Your task to perform on an android device: allow cookies in the chrome app Image 0: 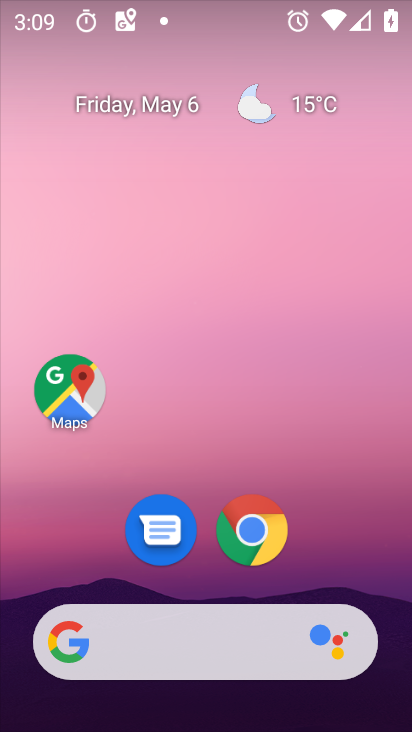
Step 0: drag from (365, 552) to (400, 104)
Your task to perform on an android device: allow cookies in the chrome app Image 1: 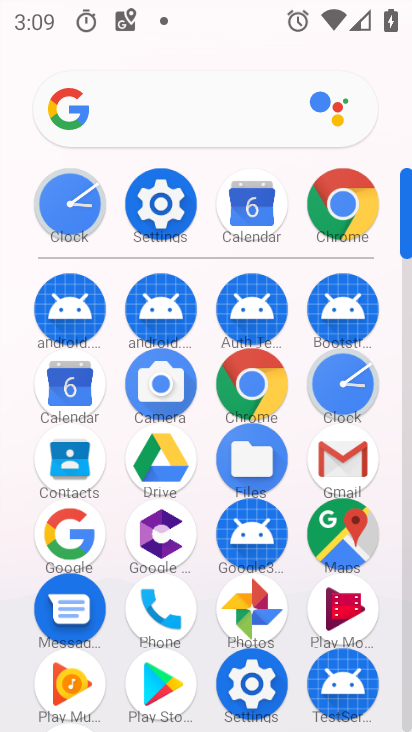
Step 1: click (347, 197)
Your task to perform on an android device: allow cookies in the chrome app Image 2: 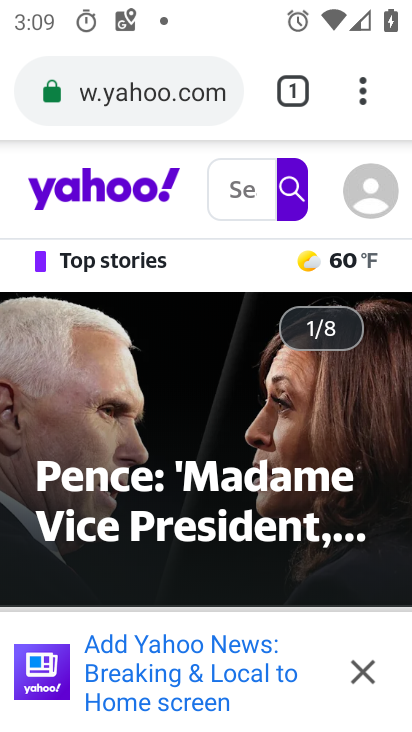
Step 2: drag from (368, 84) to (115, 552)
Your task to perform on an android device: allow cookies in the chrome app Image 3: 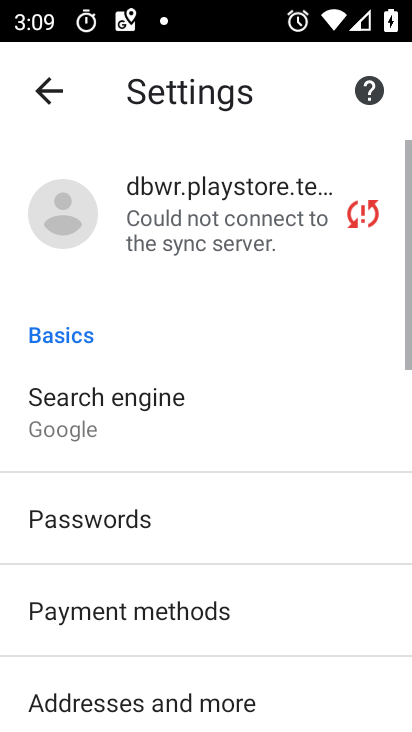
Step 3: drag from (137, 686) to (214, 210)
Your task to perform on an android device: allow cookies in the chrome app Image 4: 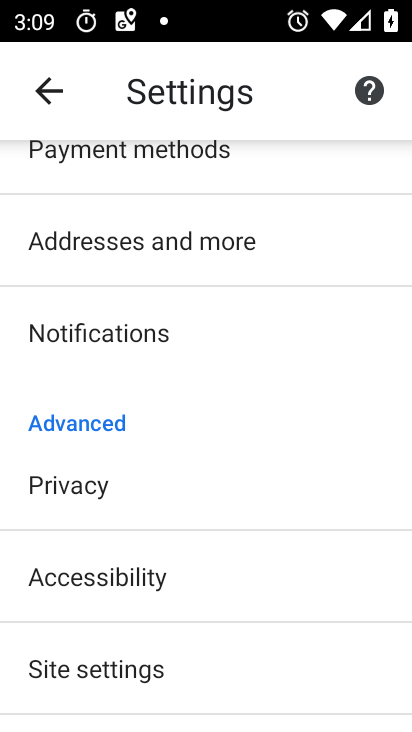
Step 4: drag from (245, 580) to (213, 112)
Your task to perform on an android device: allow cookies in the chrome app Image 5: 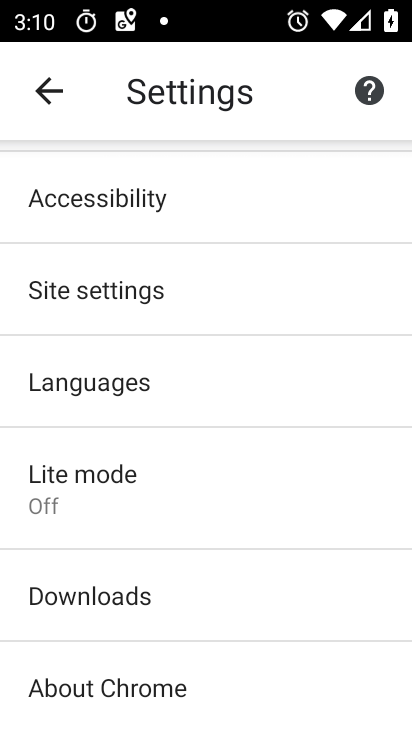
Step 5: click (70, 298)
Your task to perform on an android device: allow cookies in the chrome app Image 6: 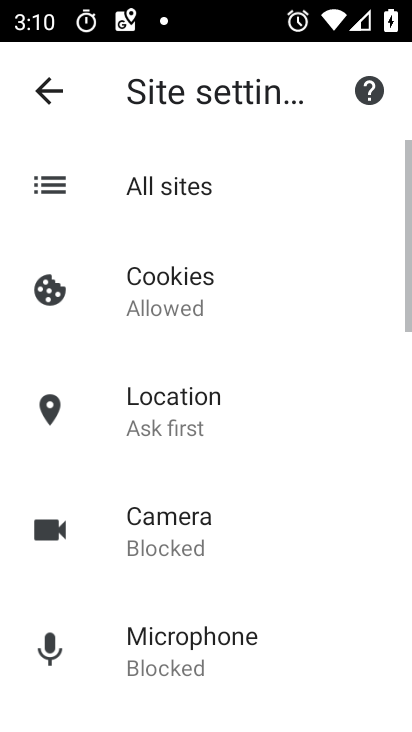
Step 6: click (179, 292)
Your task to perform on an android device: allow cookies in the chrome app Image 7: 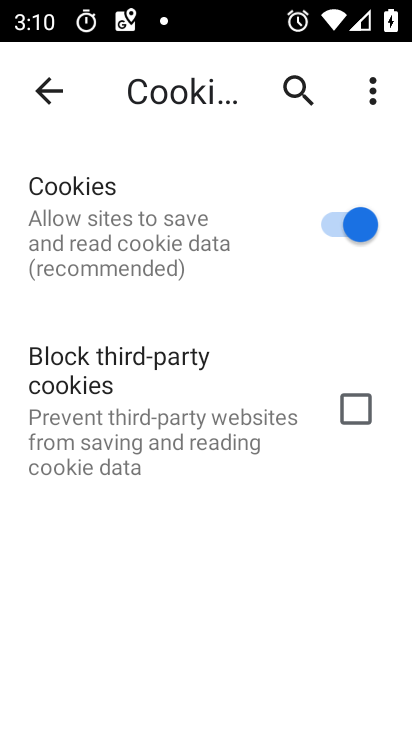
Step 7: task complete